Your task to perform on an android device: star an email in the gmail app Image 0: 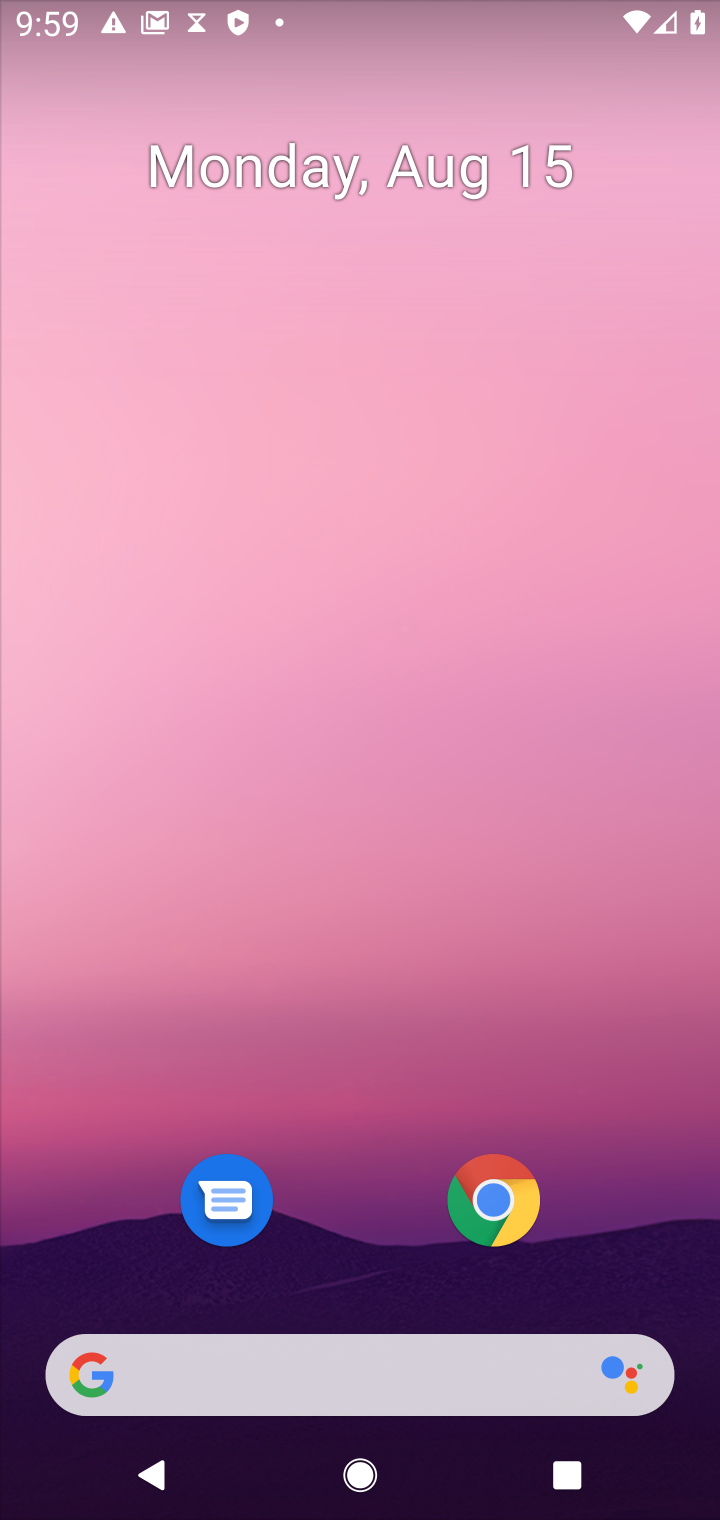
Step 0: drag from (362, 1231) to (366, 300)
Your task to perform on an android device: star an email in the gmail app Image 1: 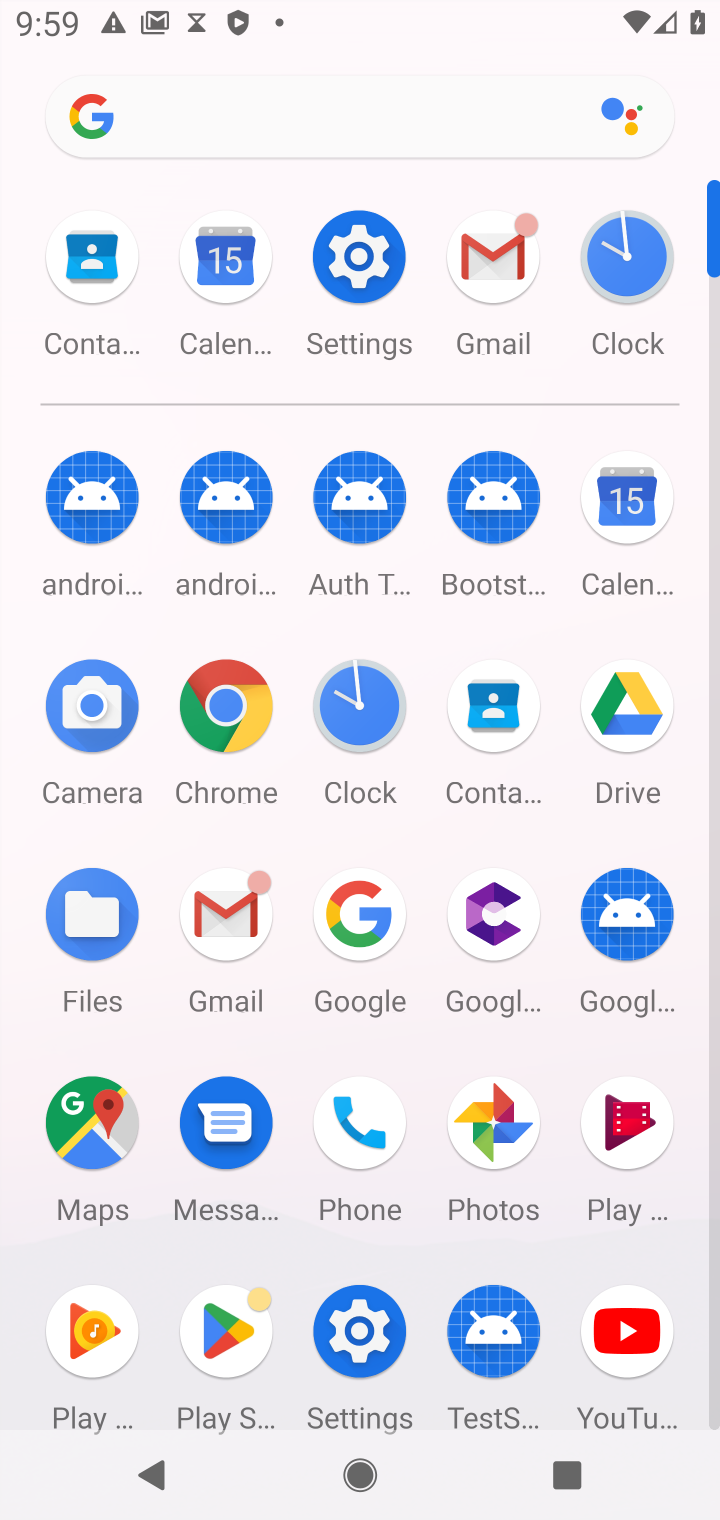
Step 1: click (491, 271)
Your task to perform on an android device: star an email in the gmail app Image 2: 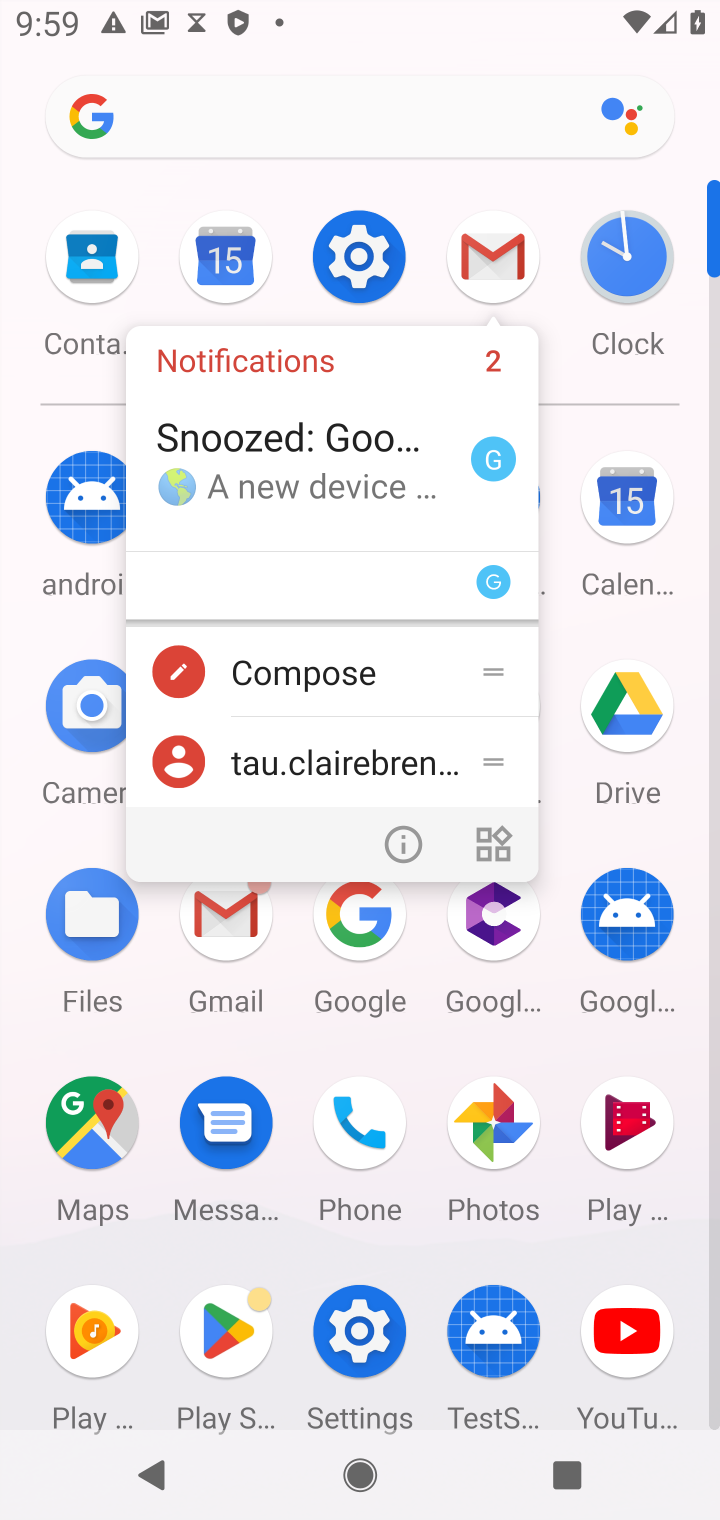
Step 2: click (501, 240)
Your task to perform on an android device: star an email in the gmail app Image 3: 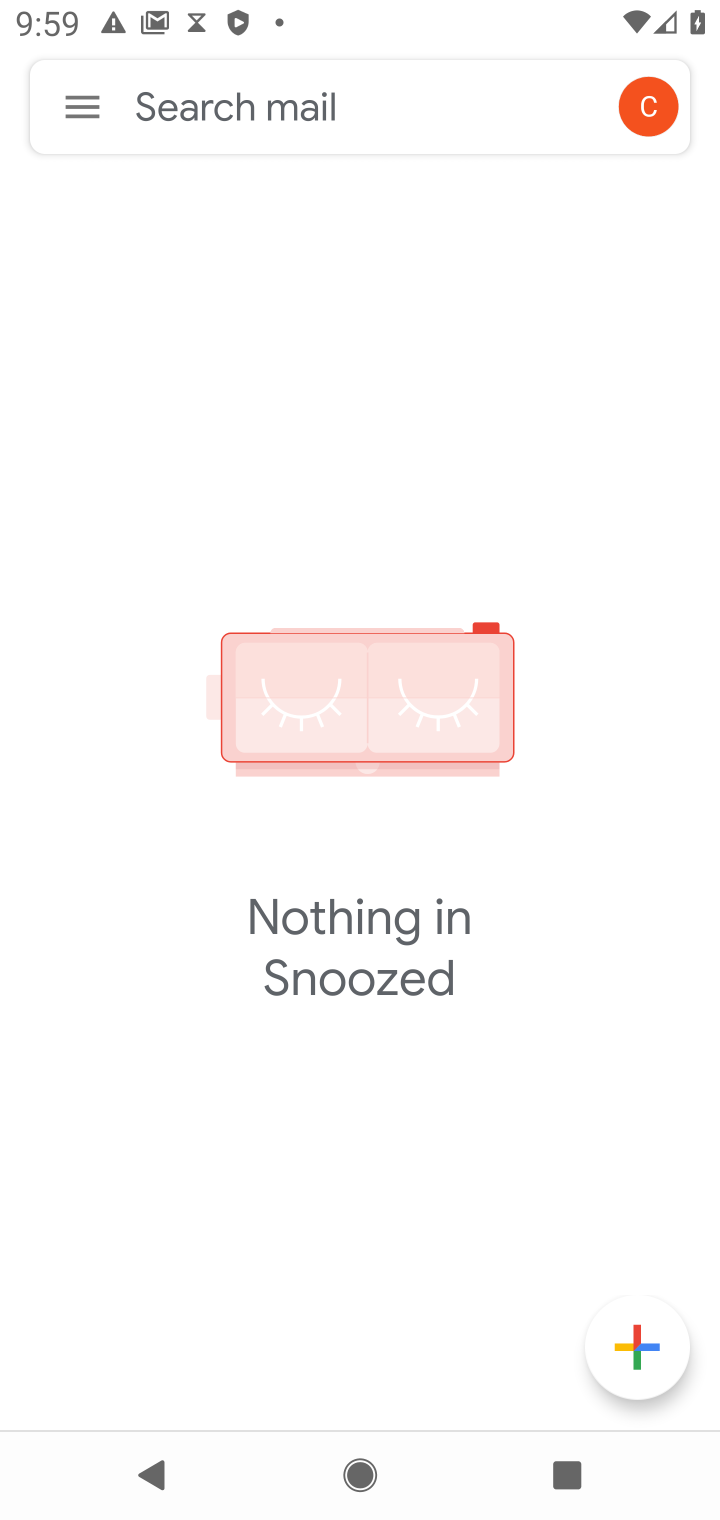
Step 3: click (70, 108)
Your task to perform on an android device: star an email in the gmail app Image 4: 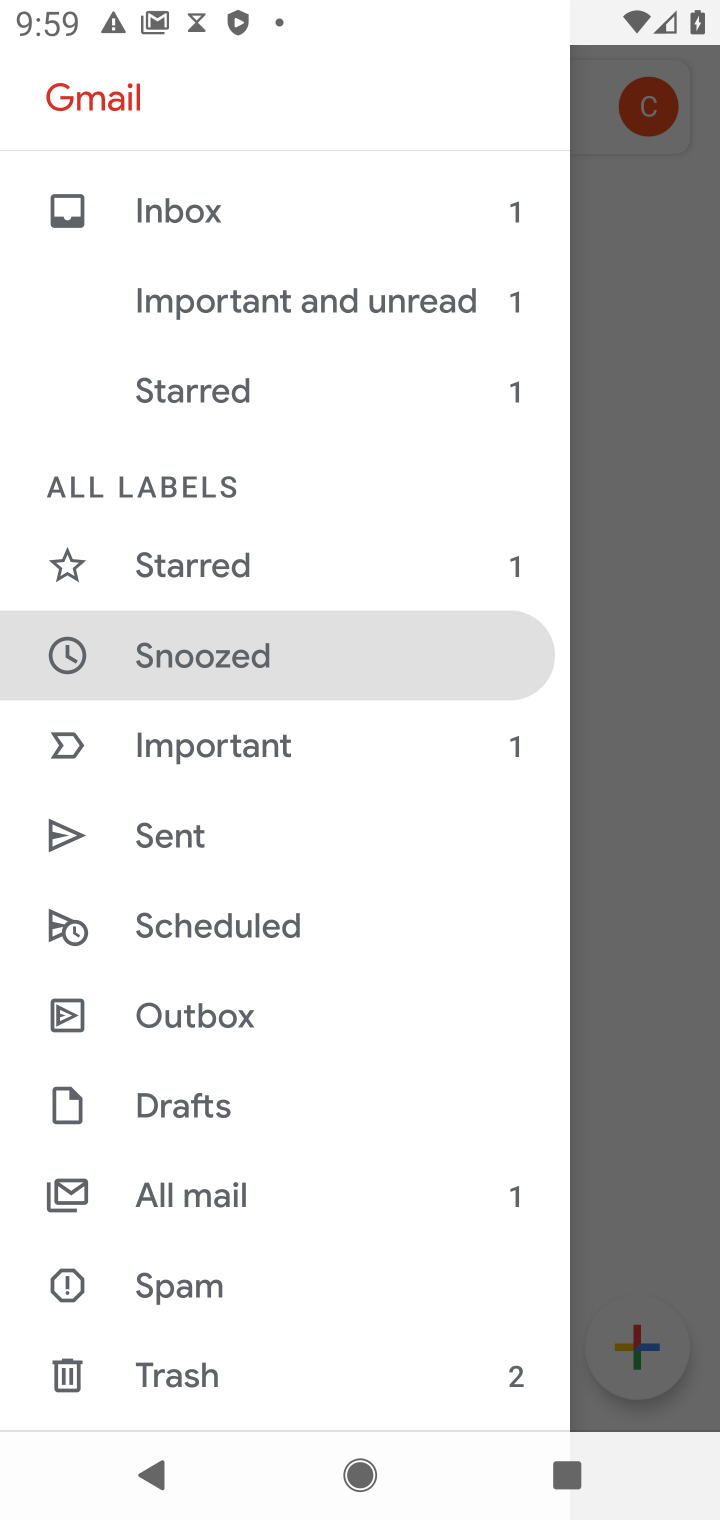
Step 4: click (193, 1197)
Your task to perform on an android device: star an email in the gmail app Image 5: 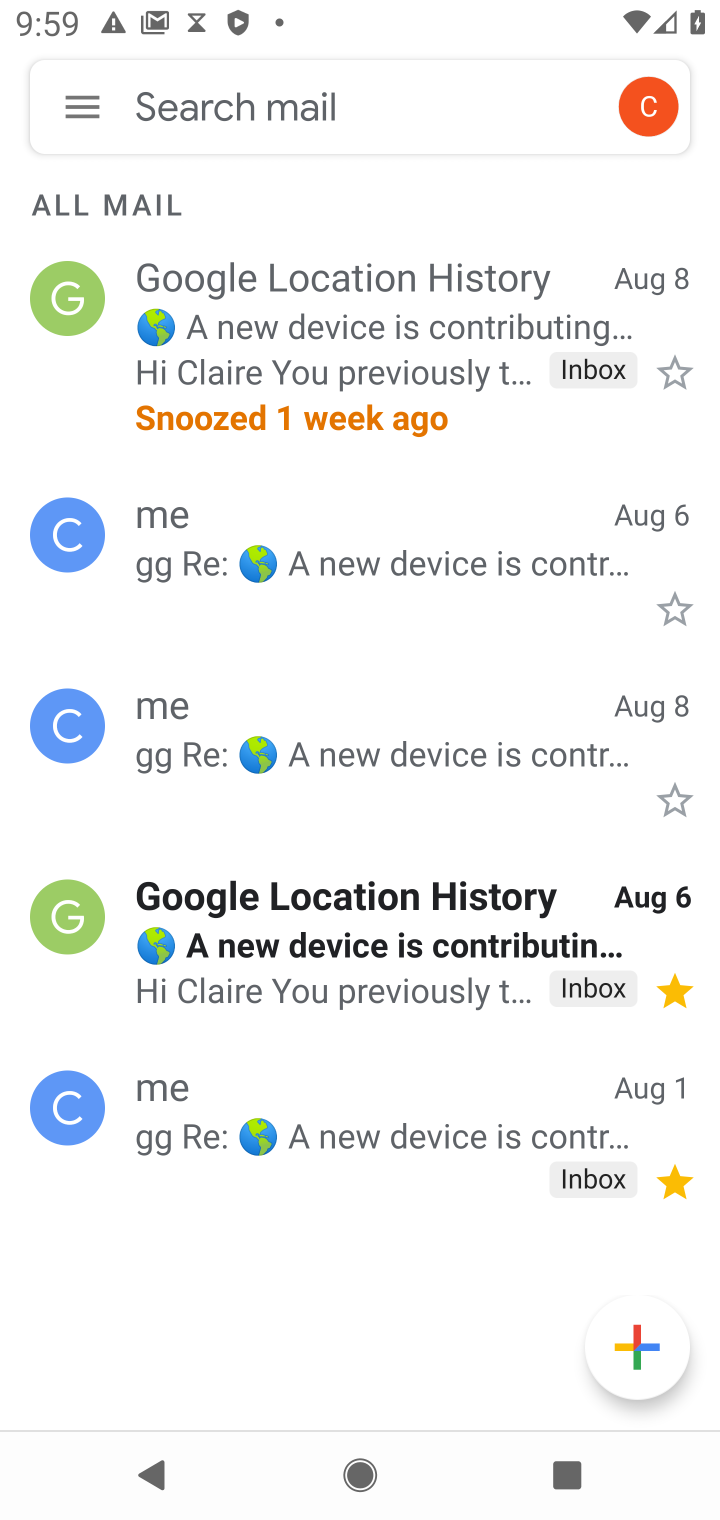
Step 5: click (664, 792)
Your task to perform on an android device: star an email in the gmail app Image 6: 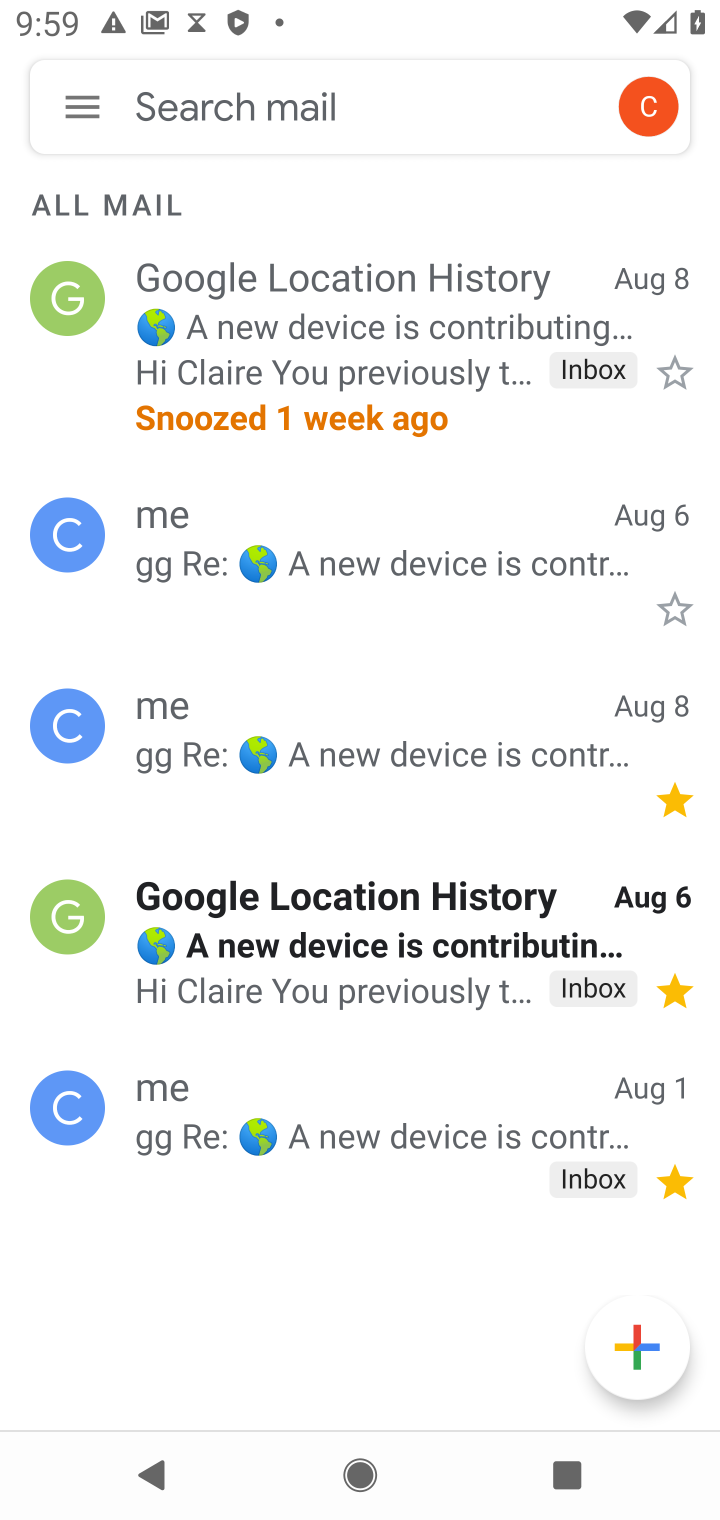
Step 6: task complete